Your task to perform on an android device: What is the recent news? Image 0: 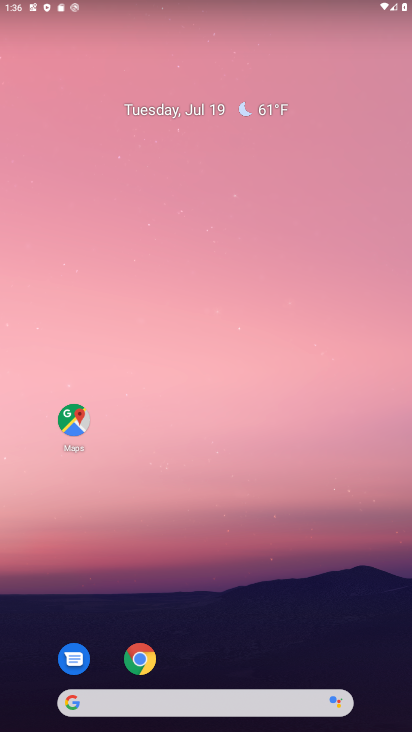
Step 0: drag from (3, 306) to (409, 192)
Your task to perform on an android device: What is the recent news? Image 1: 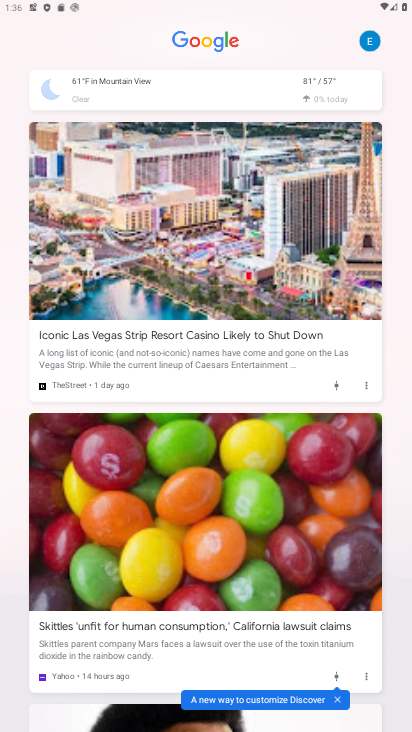
Step 1: task complete